Your task to perform on an android device: search for starred emails in the gmail app Image 0: 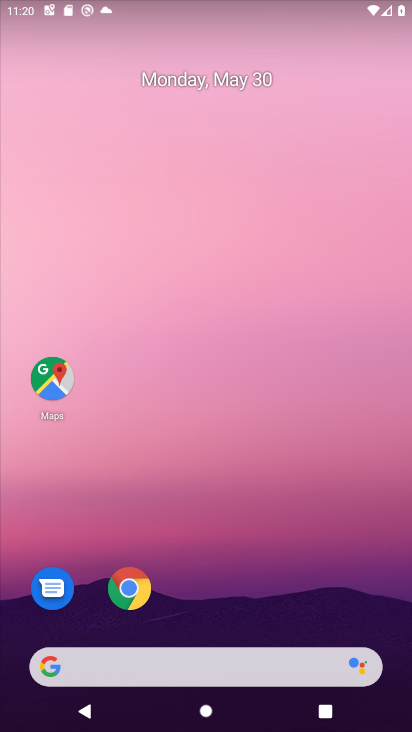
Step 0: drag from (282, 595) to (326, 37)
Your task to perform on an android device: search for starred emails in the gmail app Image 1: 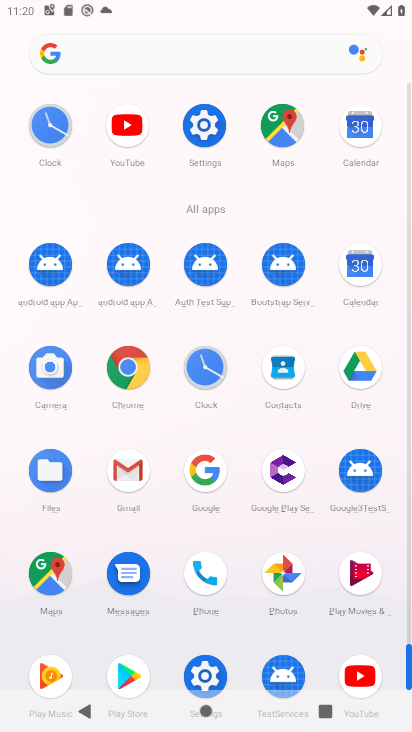
Step 1: click (117, 468)
Your task to perform on an android device: search for starred emails in the gmail app Image 2: 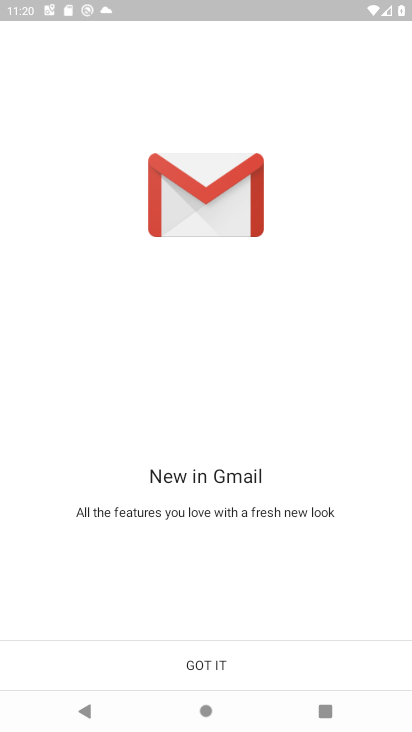
Step 2: click (222, 675)
Your task to perform on an android device: search for starred emails in the gmail app Image 3: 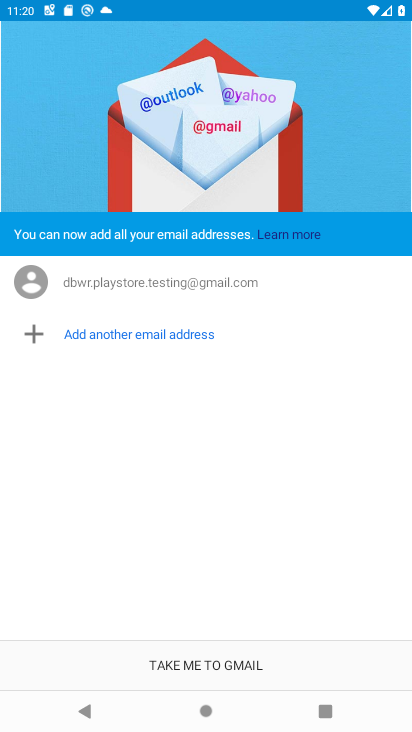
Step 3: click (222, 675)
Your task to perform on an android device: search for starred emails in the gmail app Image 4: 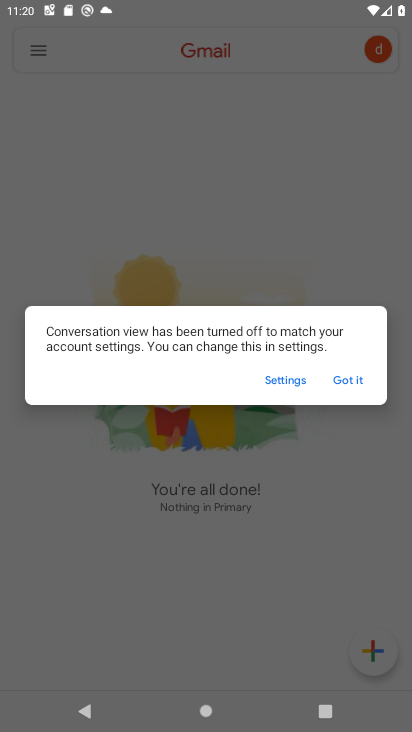
Step 4: click (345, 375)
Your task to perform on an android device: search for starred emails in the gmail app Image 5: 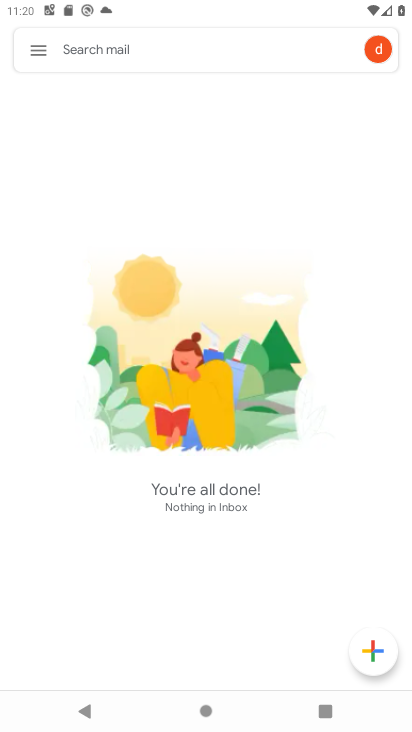
Step 5: click (46, 44)
Your task to perform on an android device: search for starred emails in the gmail app Image 6: 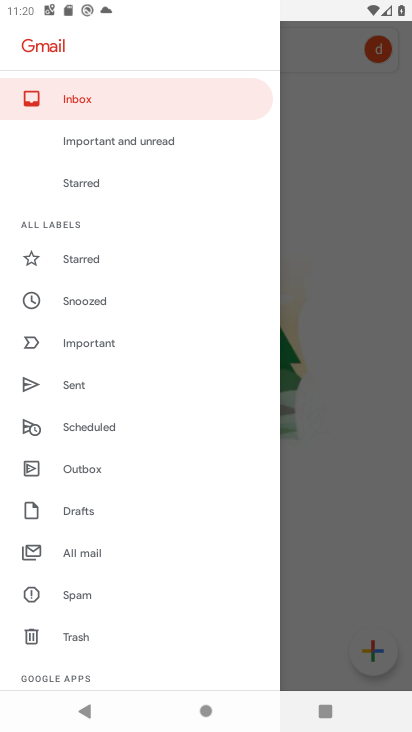
Step 6: click (107, 258)
Your task to perform on an android device: search for starred emails in the gmail app Image 7: 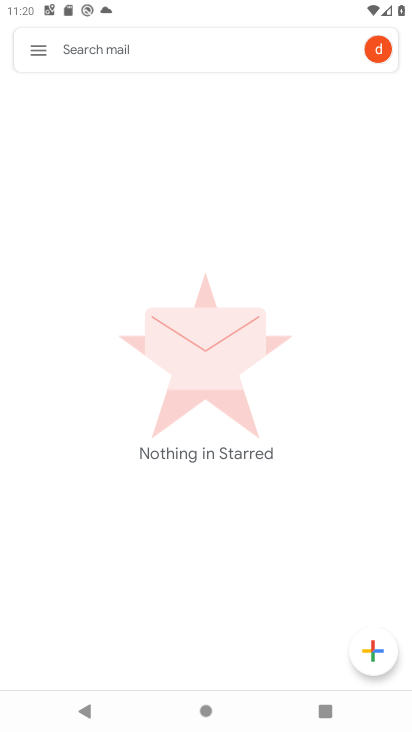
Step 7: task complete